Your task to perform on an android device: Open Youtube and go to the subscriptions tab Image 0: 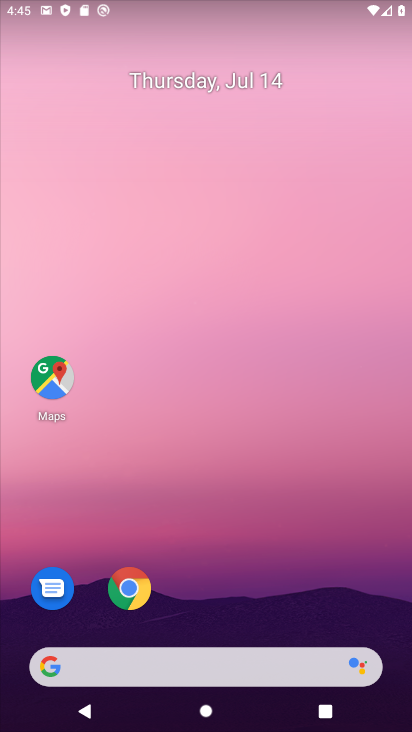
Step 0: drag from (176, 655) to (207, 229)
Your task to perform on an android device: Open Youtube and go to the subscriptions tab Image 1: 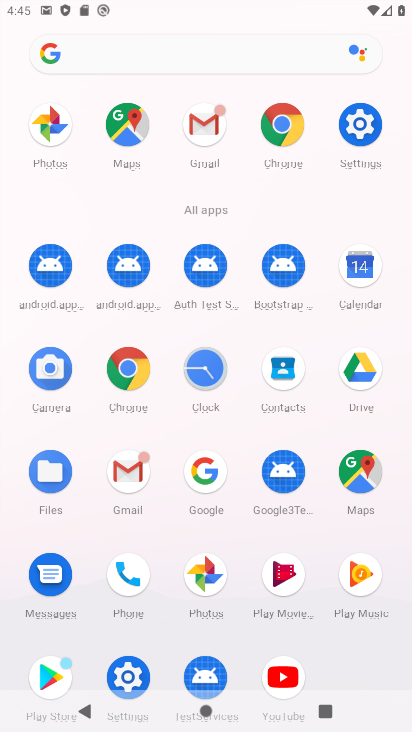
Step 1: click (288, 675)
Your task to perform on an android device: Open Youtube and go to the subscriptions tab Image 2: 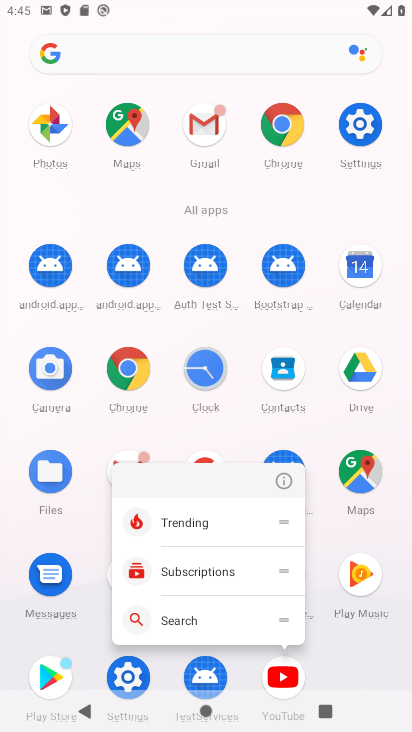
Step 2: click (288, 675)
Your task to perform on an android device: Open Youtube and go to the subscriptions tab Image 3: 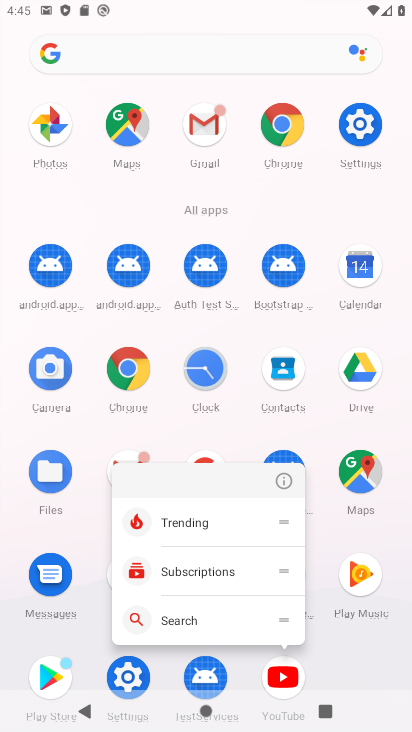
Step 3: click (288, 675)
Your task to perform on an android device: Open Youtube and go to the subscriptions tab Image 4: 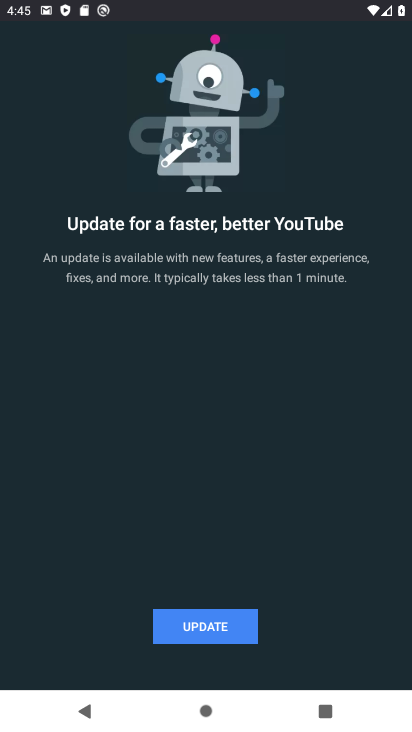
Step 4: click (231, 641)
Your task to perform on an android device: Open Youtube and go to the subscriptions tab Image 5: 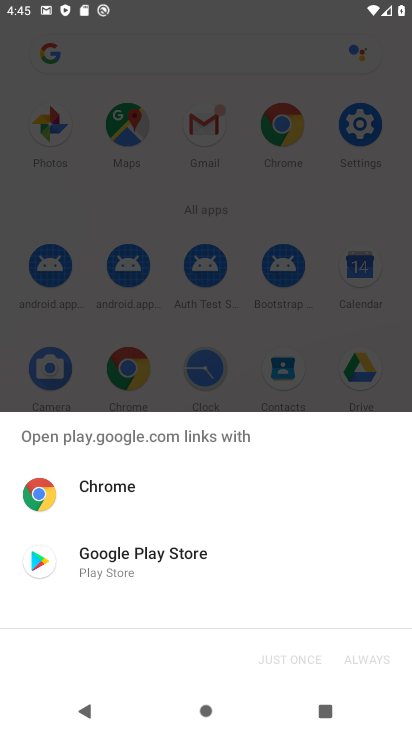
Step 5: click (273, 589)
Your task to perform on an android device: Open Youtube and go to the subscriptions tab Image 6: 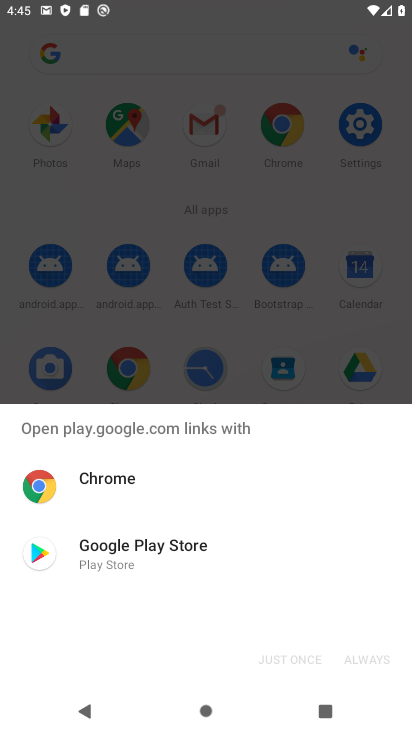
Step 6: click (180, 577)
Your task to perform on an android device: Open Youtube and go to the subscriptions tab Image 7: 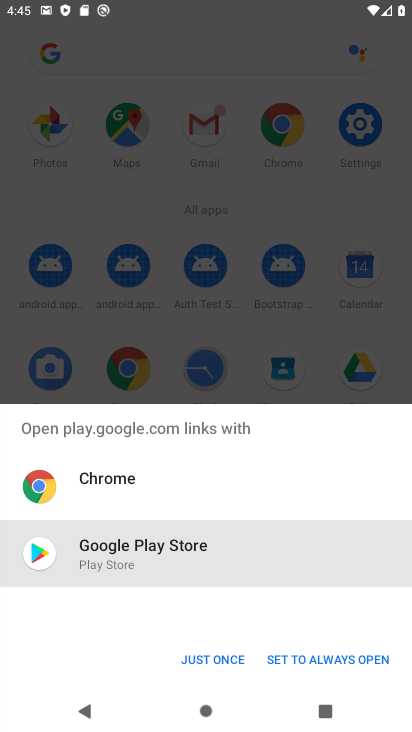
Step 7: click (219, 651)
Your task to perform on an android device: Open Youtube and go to the subscriptions tab Image 8: 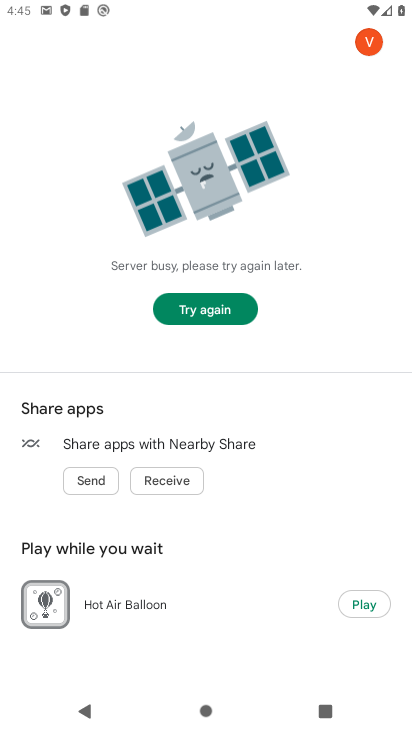
Step 8: task complete